Your task to perform on an android device: toggle priority inbox in the gmail app Image 0: 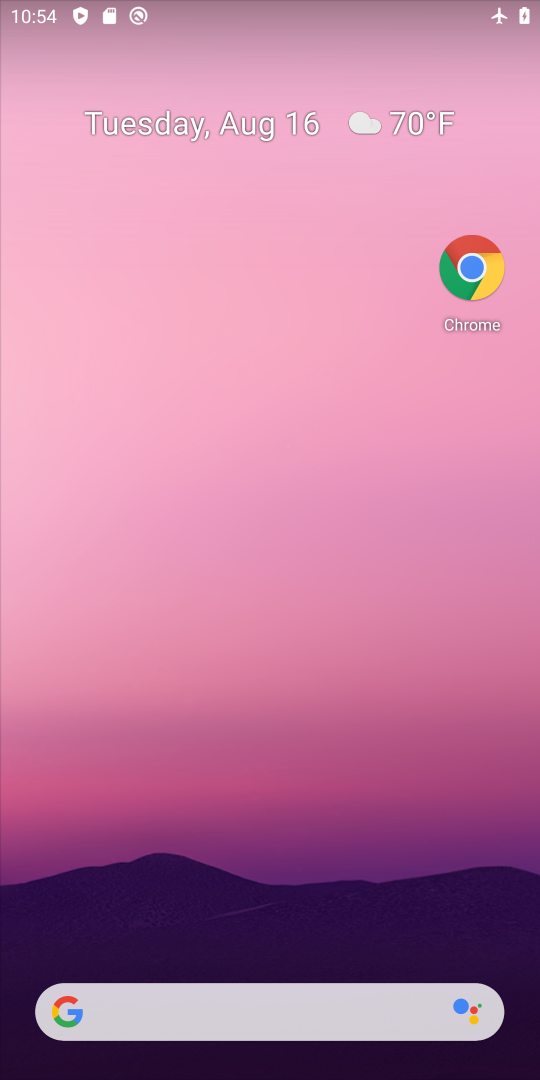
Step 0: drag from (151, 76) to (237, 892)
Your task to perform on an android device: toggle priority inbox in the gmail app Image 1: 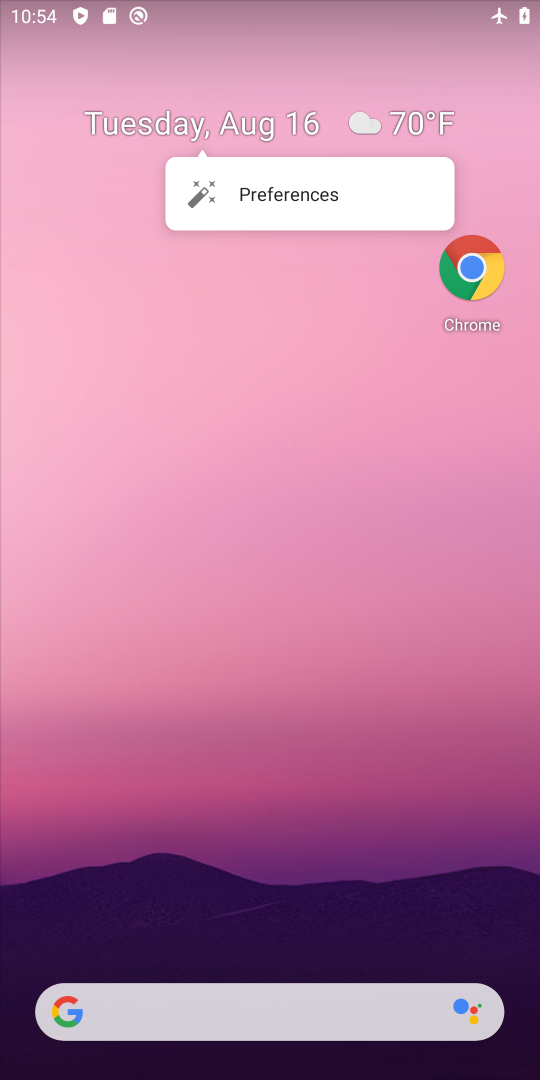
Step 1: drag from (299, 957) to (308, 110)
Your task to perform on an android device: toggle priority inbox in the gmail app Image 2: 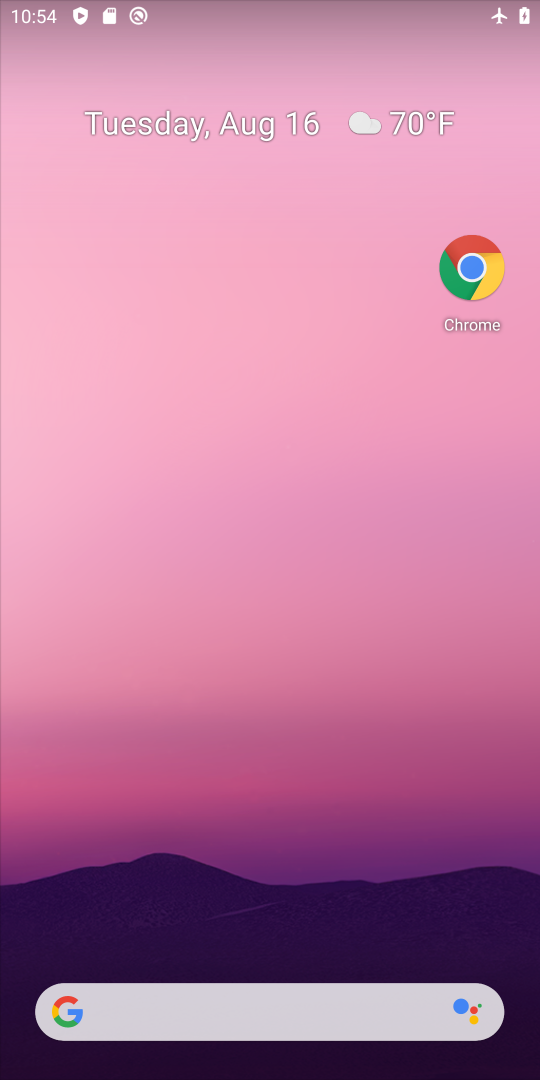
Step 2: drag from (277, 966) to (213, 191)
Your task to perform on an android device: toggle priority inbox in the gmail app Image 3: 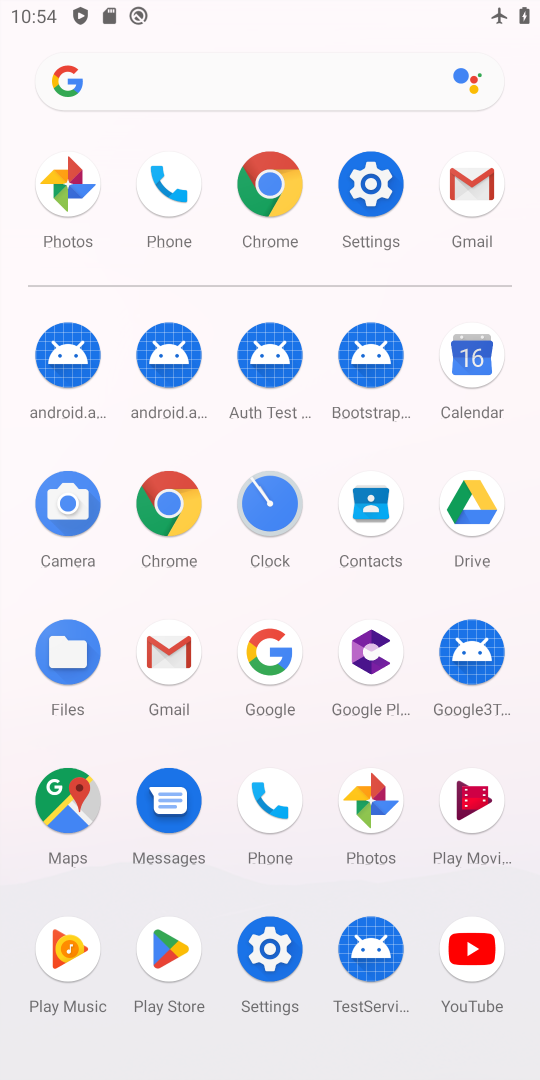
Step 3: click (171, 691)
Your task to perform on an android device: toggle priority inbox in the gmail app Image 4: 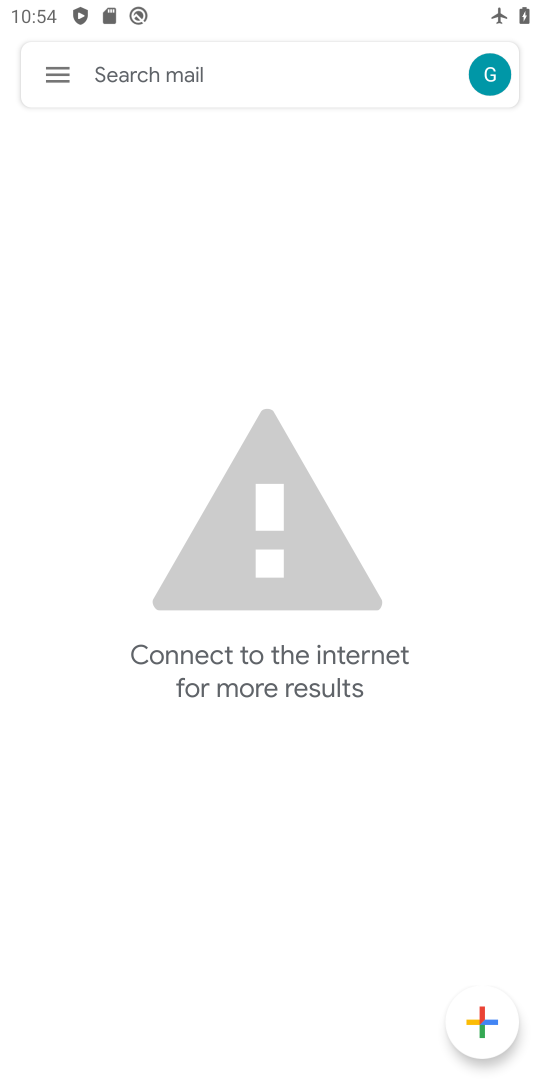
Step 4: click (65, 79)
Your task to perform on an android device: toggle priority inbox in the gmail app Image 5: 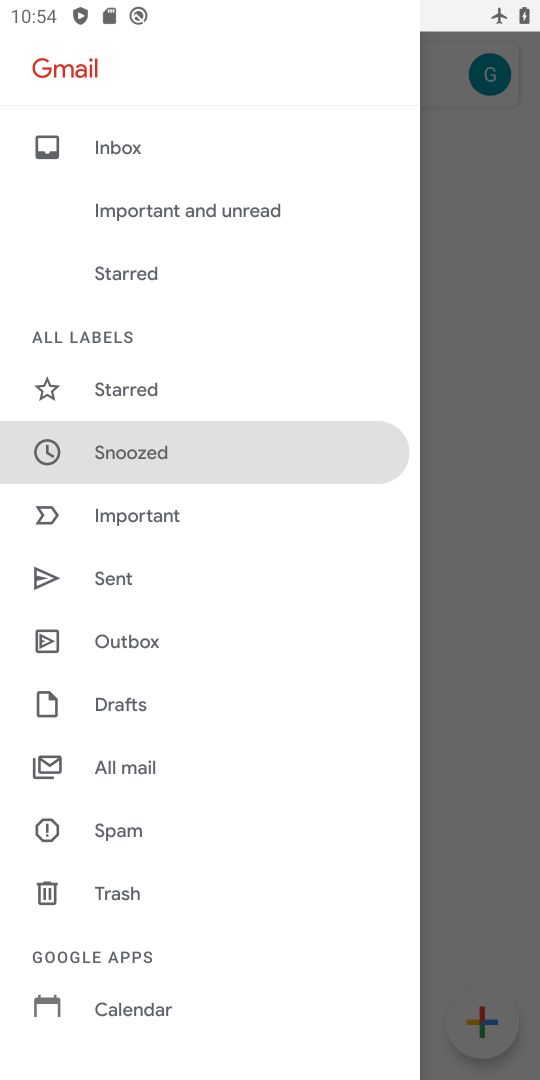
Step 5: drag from (118, 903) to (8, 281)
Your task to perform on an android device: toggle priority inbox in the gmail app Image 6: 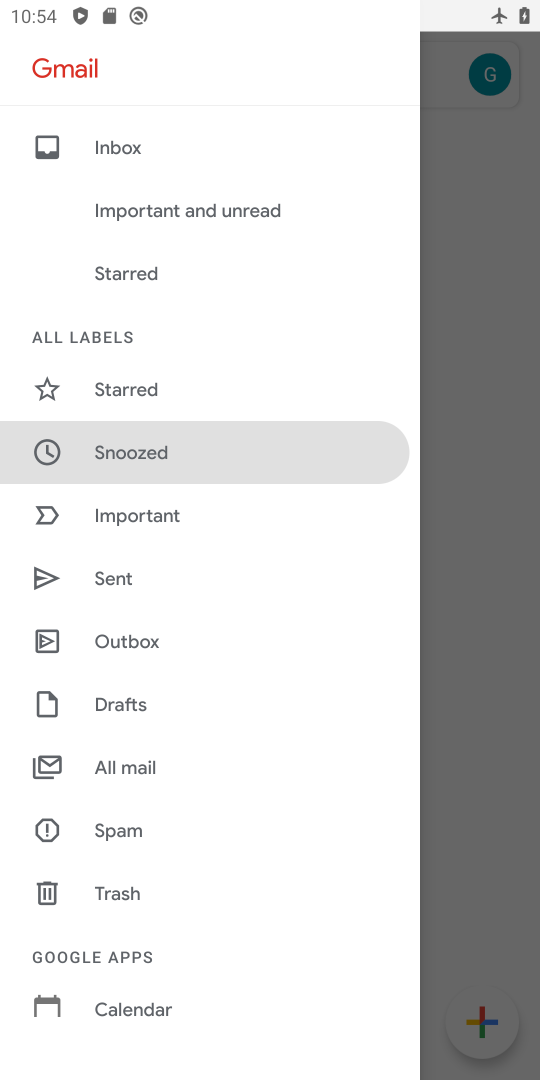
Step 6: drag from (181, 862) to (210, 245)
Your task to perform on an android device: toggle priority inbox in the gmail app Image 7: 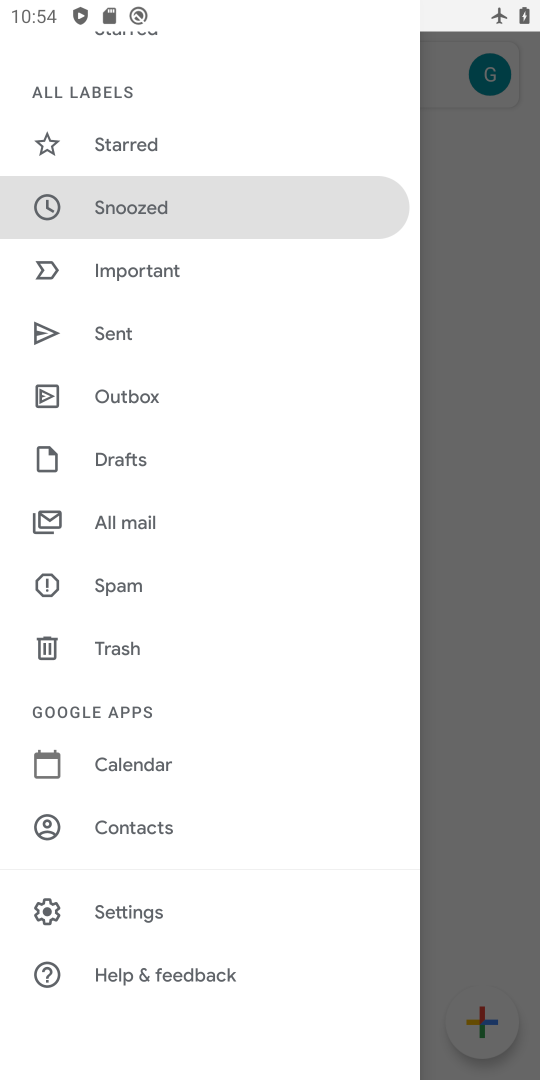
Step 7: click (146, 905)
Your task to perform on an android device: toggle priority inbox in the gmail app Image 8: 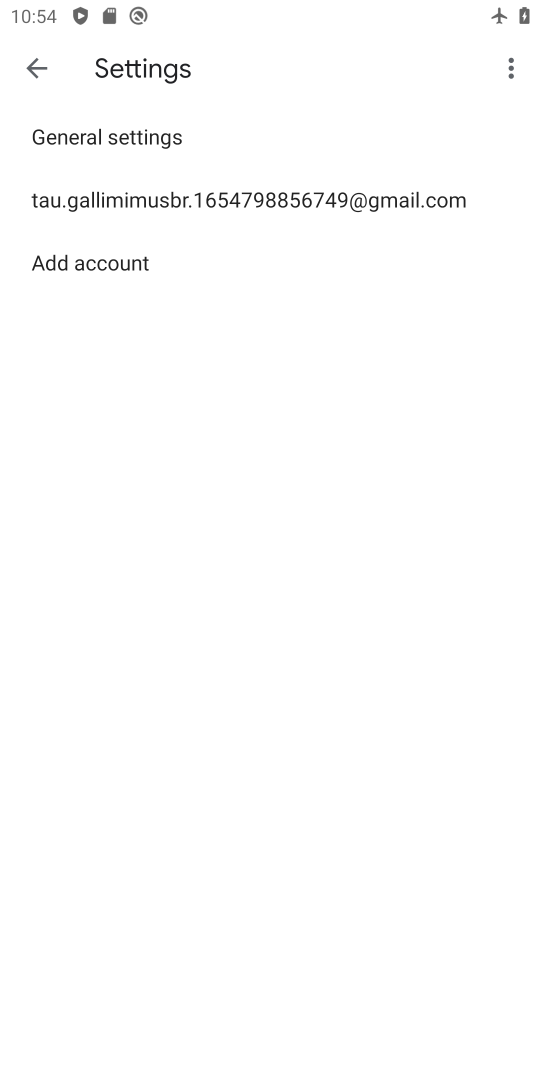
Step 8: click (72, 203)
Your task to perform on an android device: toggle priority inbox in the gmail app Image 9: 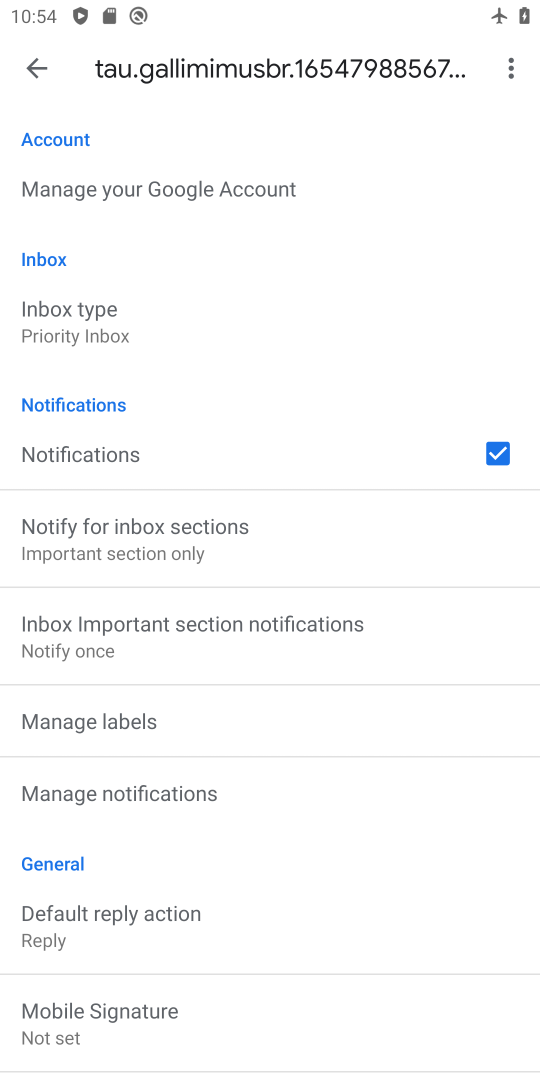
Step 9: click (85, 312)
Your task to perform on an android device: toggle priority inbox in the gmail app Image 10: 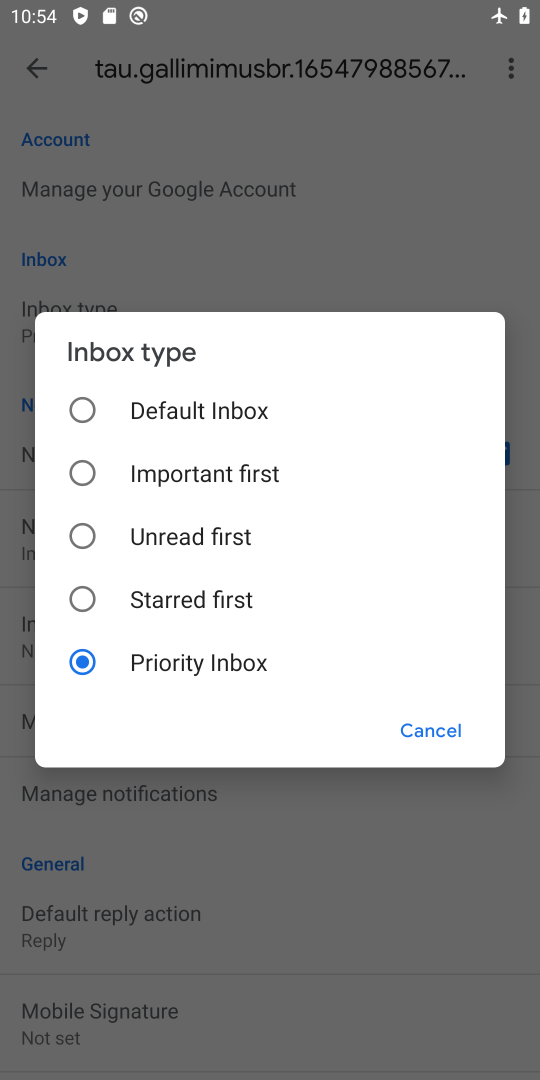
Step 10: click (124, 400)
Your task to perform on an android device: toggle priority inbox in the gmail app Image 11: 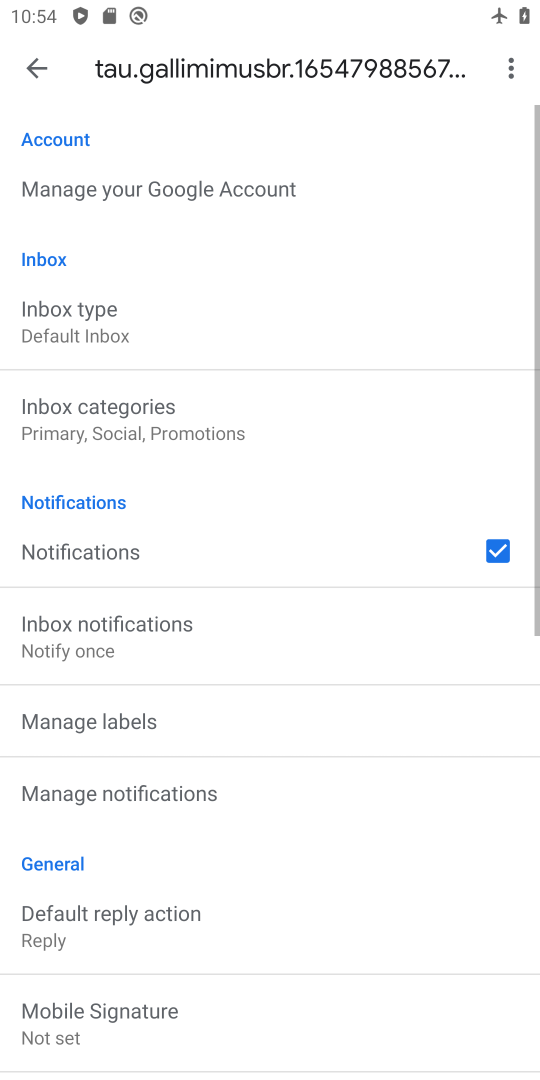
Step 11: task complete